Your task to perform on an android device: Open CNN.com Image 0: 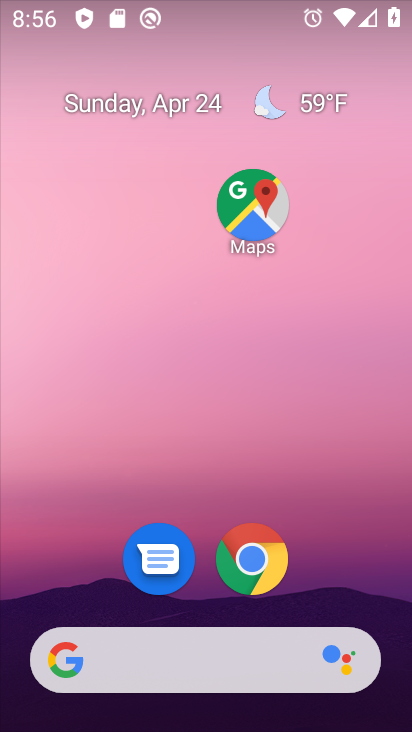
Step 0: click (228, 569)
Your task to perform on an android device: Open CNN.com Image 1: 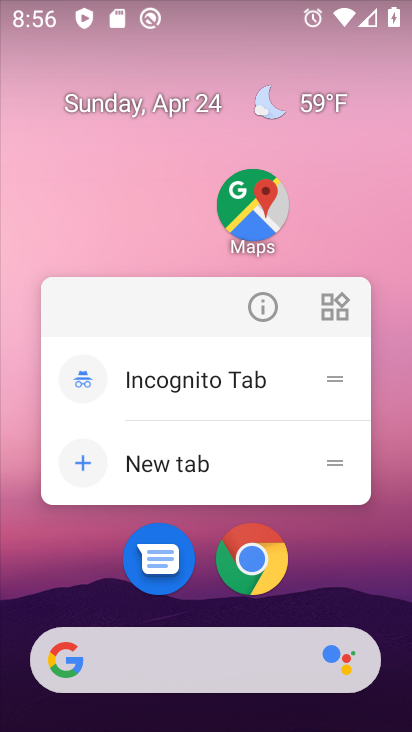
Step 1: click (266, 303)
Your task to perform on an android device: Open CNN.com Image 2: 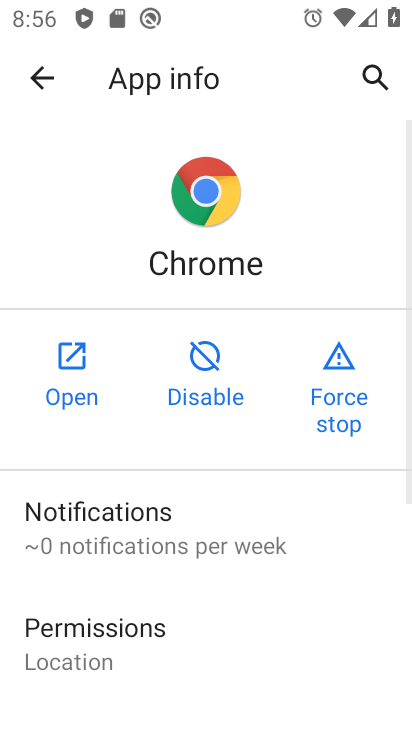
Step 2: click (72, 371)
Your task to perform on an android device: Open CNN.com Image 3: 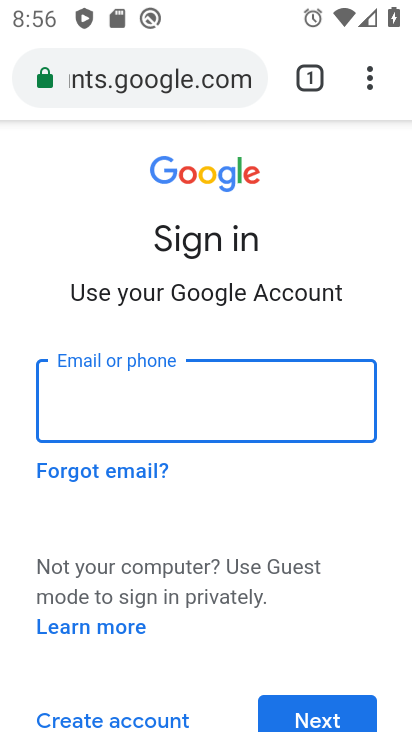
Step 3: press back button
Your task to perform on an android device: Open CNN.com Image 4: 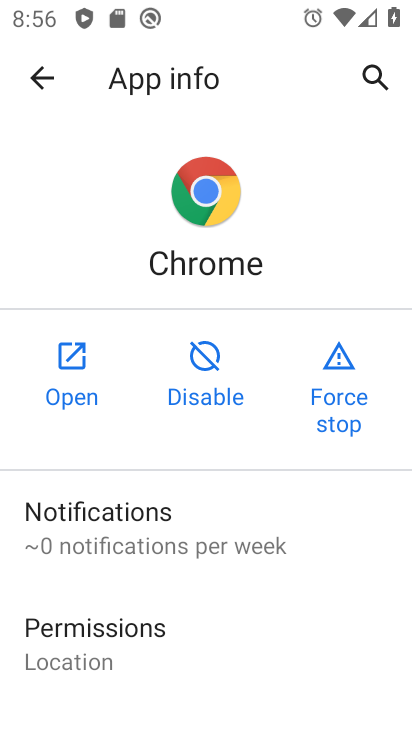
Step 4: click (76, 386)
Your task to perform on an android device: Open CNN.com Image 5: 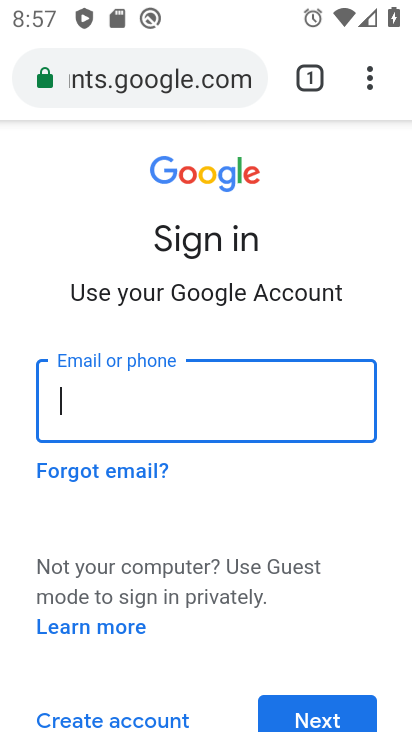
Step 5: click (162, 61)
Your task to perform on an android device: Open CNN.com Image 6: 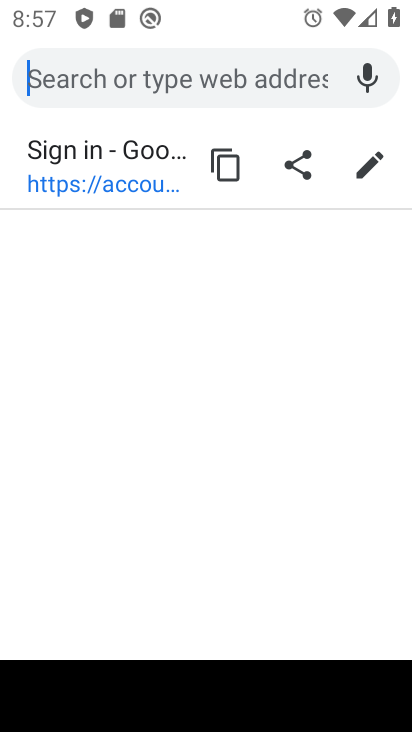
Step 6: click (221, 70)
Your task to perform on an android device: Open CNN.com Image 7: 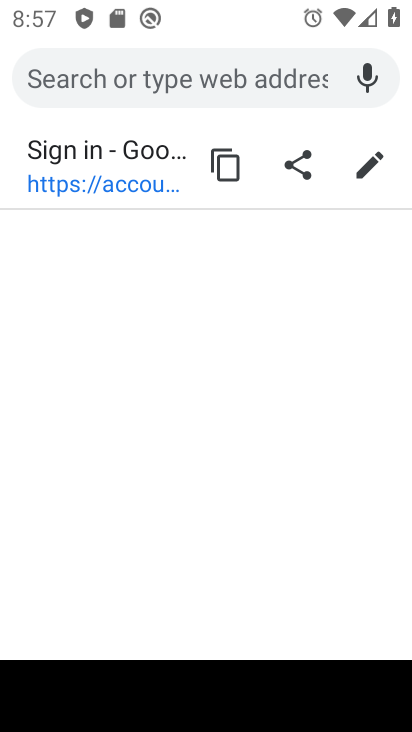
Step 7: type "CNN.com"
Your task to perform on an android device: Open CNN.com Image 8: 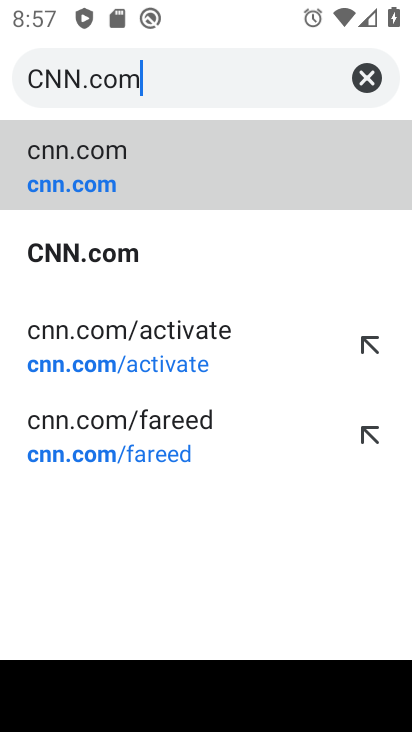
Step 8: type ""
Your task to perform on an android device: Open CNN.com Image 9: 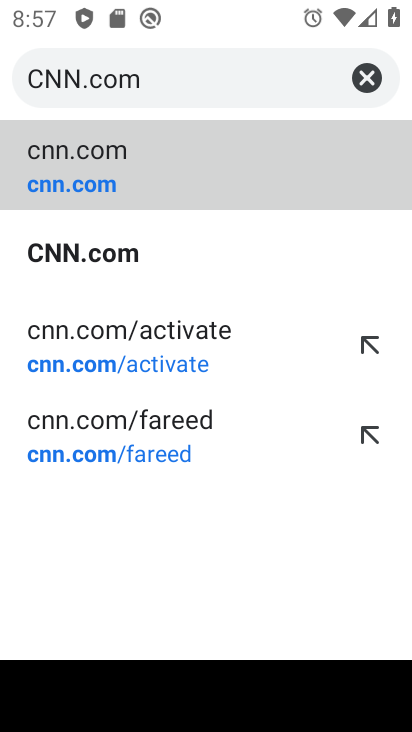
Step 9: click (89, 254)
Your task to perform on an android device: Open CNN.com Image 10: 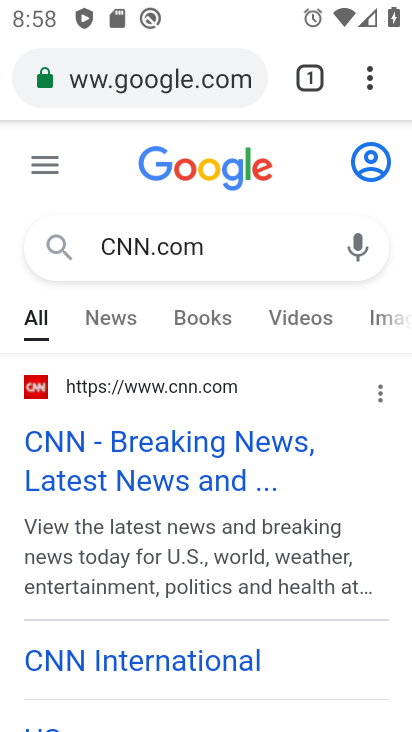
Step 10: task complete